Your task to perform on an android device: Open the calendar and show me this week's events Image 0: 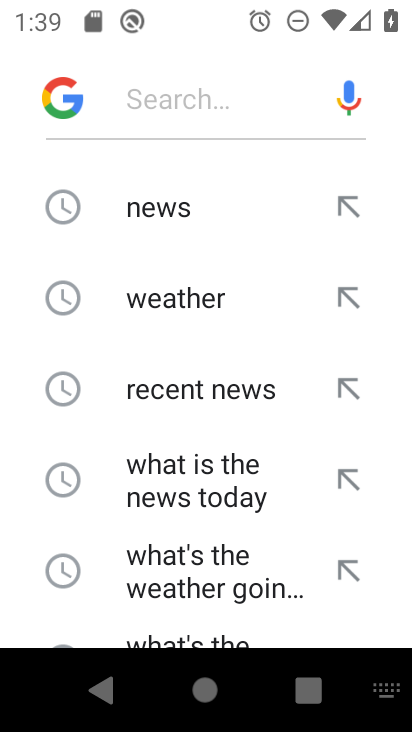
Step 0: press home button
Your task to perform on an android device: Open the calendar and show me this week's events Image 1: 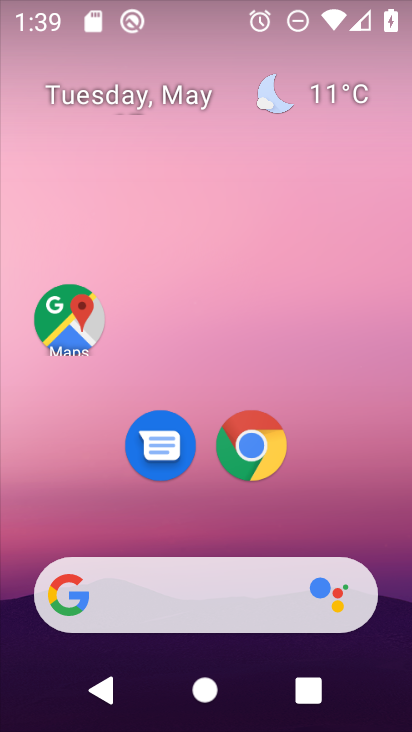
Step 1: drag from (235, 375) to (170, 11)
Your task to perform on an android device: Open the calendar and show me this week's events Image 2: 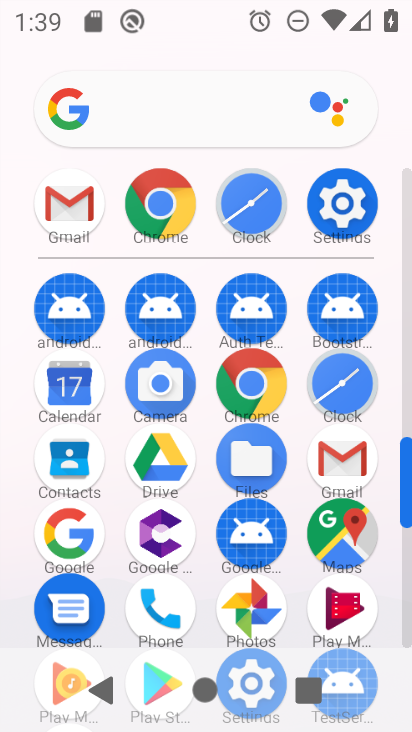
Step 2: click (74, 381)
Your task to perform on an android device: Open the calendar and show me this week's events Image 3: 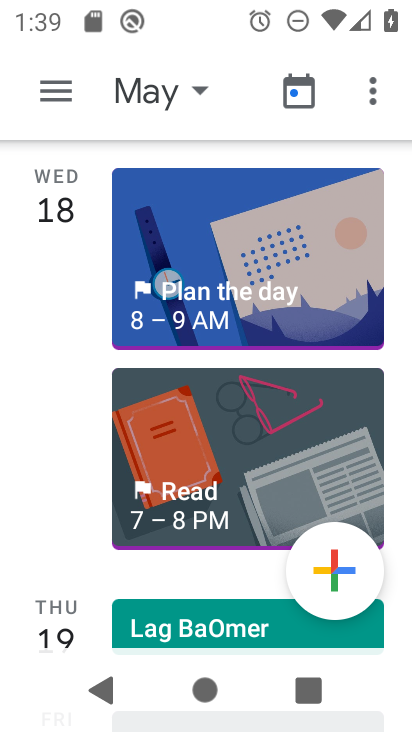
Step 3: click (59, 85)
Your task to perform on an android device: Open the calendar and show me this week's events Image 4: 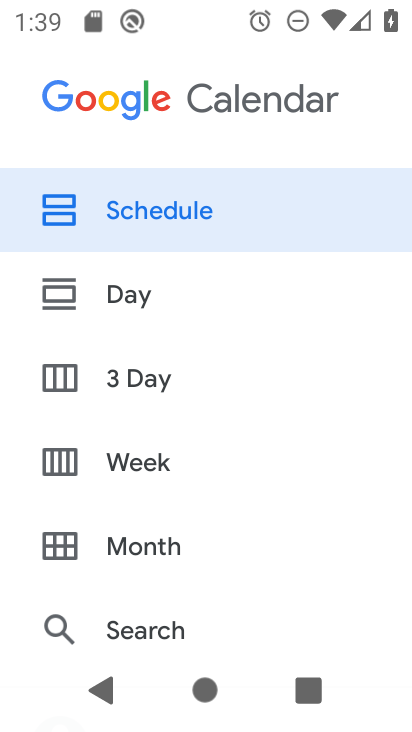
Step 4: click (160, 469)
Your task to perform on an android device: Open the calendar and show me this week's events Image 5: 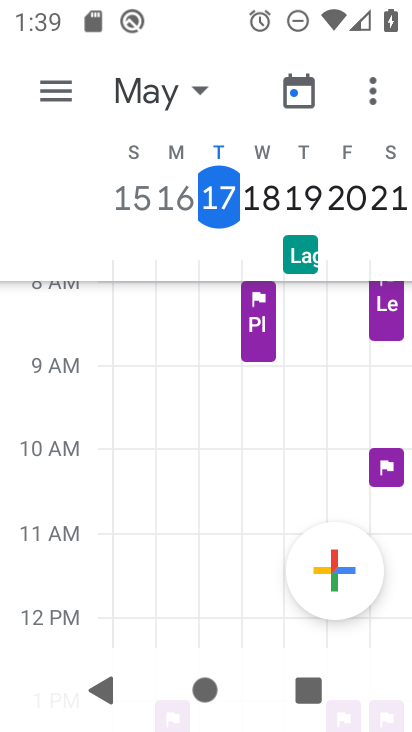
Step 5: task complete